Your task to perform on an android device: all mails in gmail Image 0: 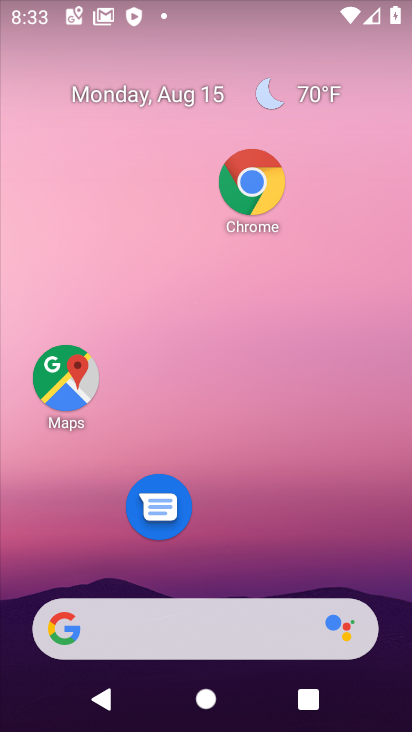
Step 0: drag from (249, 589) to (189, 112)
Your task to perform on an android device: all mails in gmail Image 1: 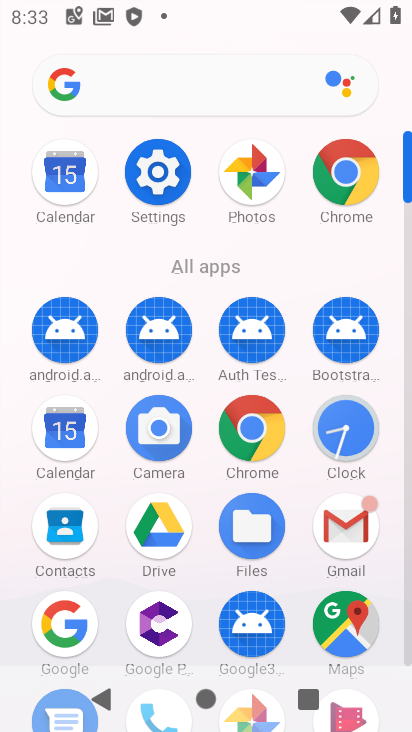
Step 1: click (341, 524)
Your task to perform on an android device: all mails in gmail Image 2: 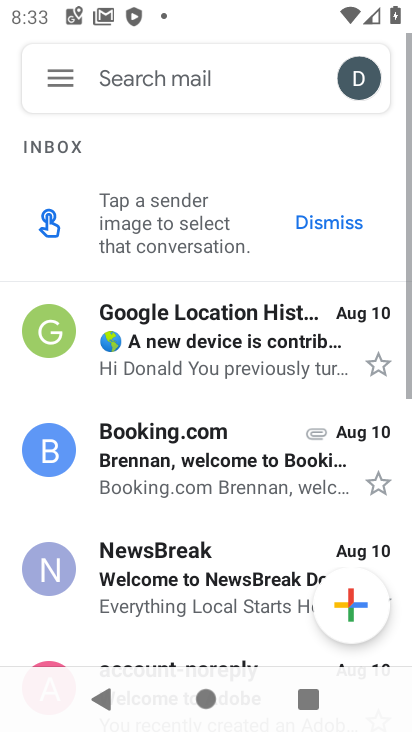
Step 2: task complete